Your task to perform on an android device: see creations saved in the google photos Image 0: 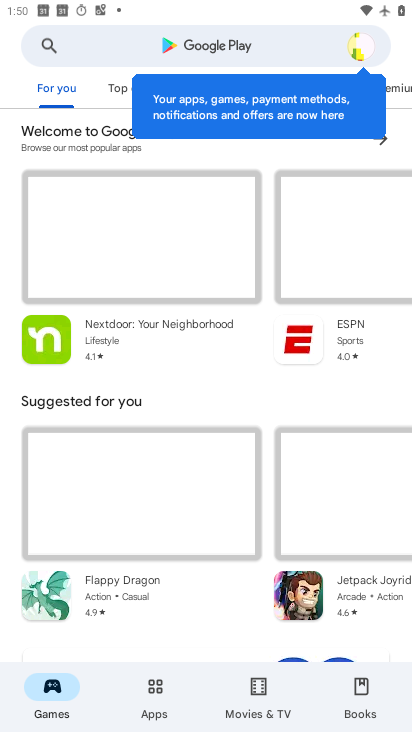
Step 0: press home button
Your task to perform on an android device: see creations saved in the google photos Image 1: 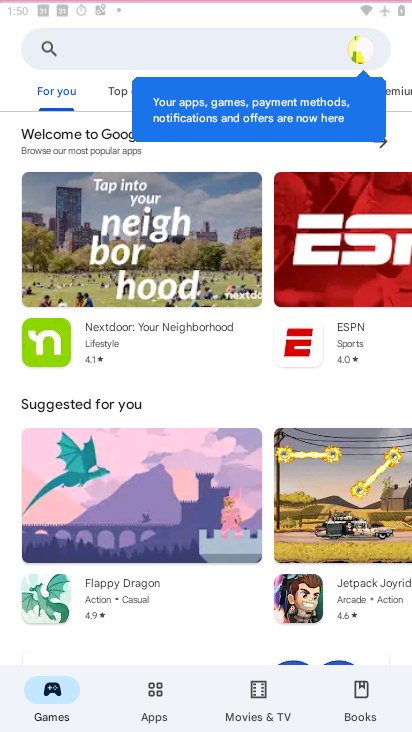
Step 1: drag from (322, 620) to (335, 100)
Your task to perform on an android device: see creations saved in the google photos Image 2: 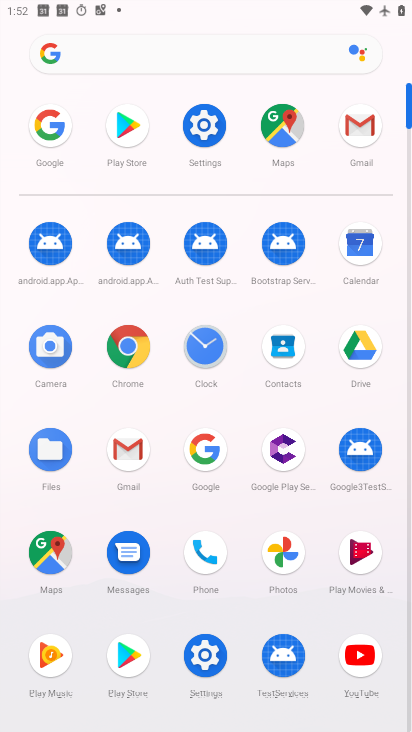
Step 2: click (272, 540)
Your task to perform on an android device: see creations saved in the google photos Image 3: 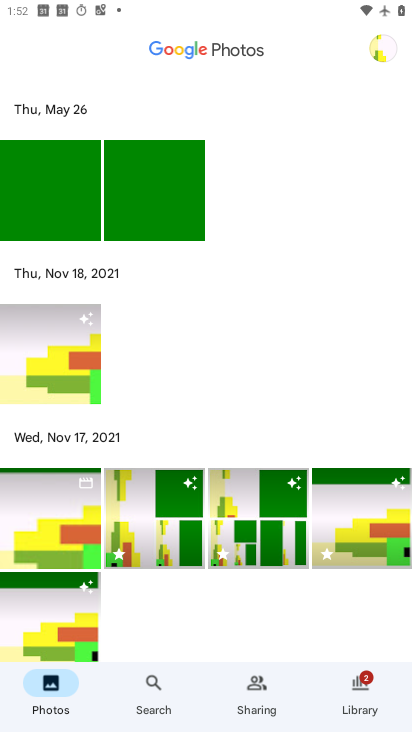
Step 3: click (152, 690)
Your task to perform on an android device: see creations saved in the google photos Image 4: 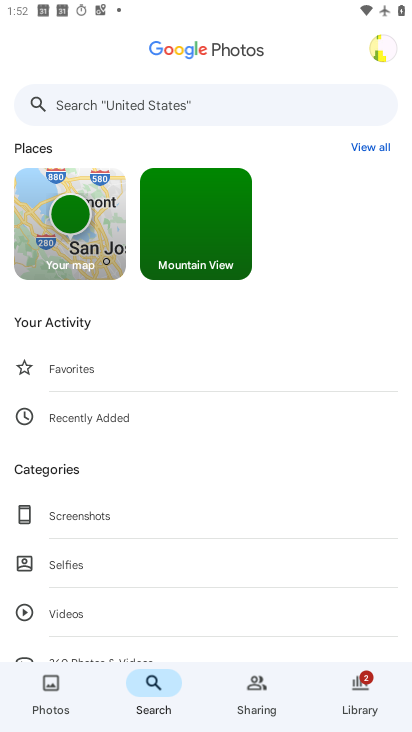
Step 4: drag from (103, 608) to (143, 215)
Your task to perform on an android device: see creations saved in the google photos Image 5: 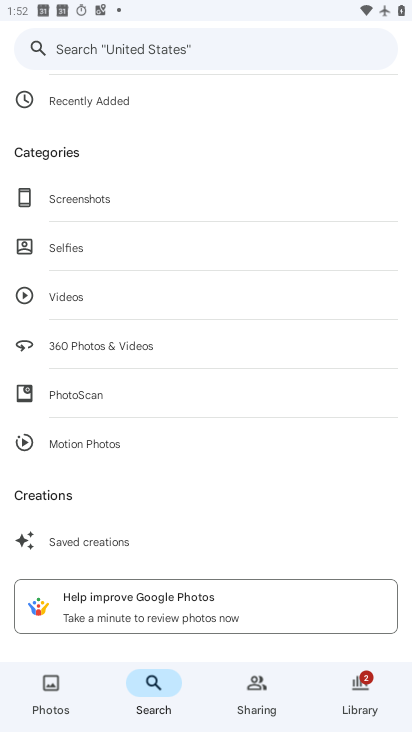
Step 5: click (57, 544)
Your task to perform on an android device: see creations saved in the google photos Image 6: 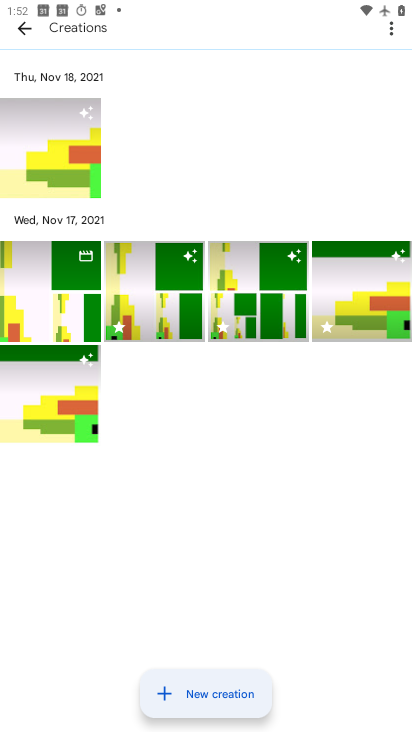
Step 6: task complete